Your task to perform on an android device: Open Android settings Image 0: 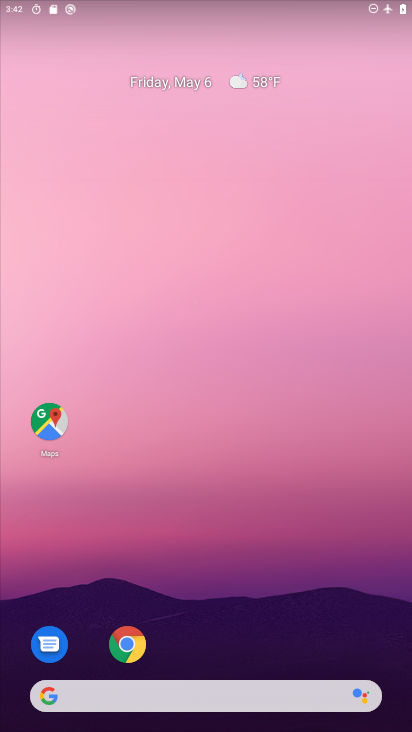
Step 0: drag from (194, 611) to (197, 194)
Your task to perform on an android device: Open Android settings Image 1: 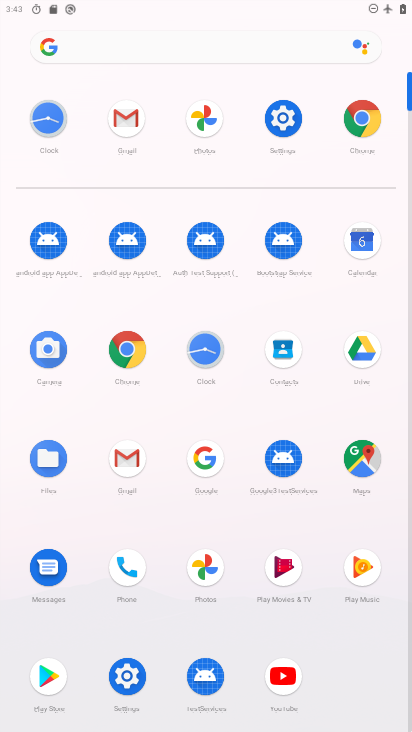
Step 1: click (286, 121)
Your task to perform on an android device: Open Android settings Image 2: 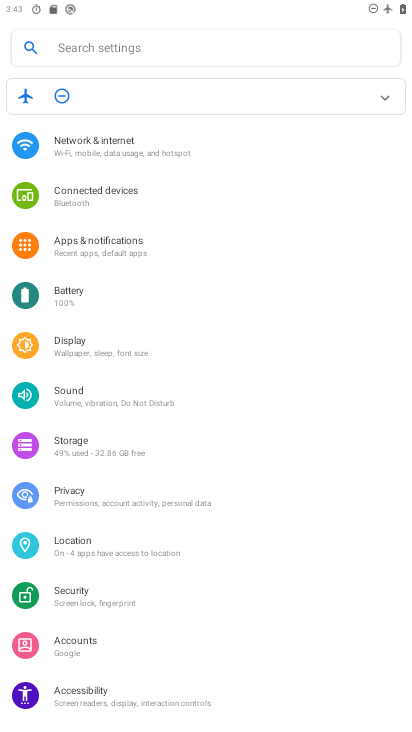
Step 2: task complete